Your task to perform on an android device: Open calendar and show me the third week of next month Image 0: 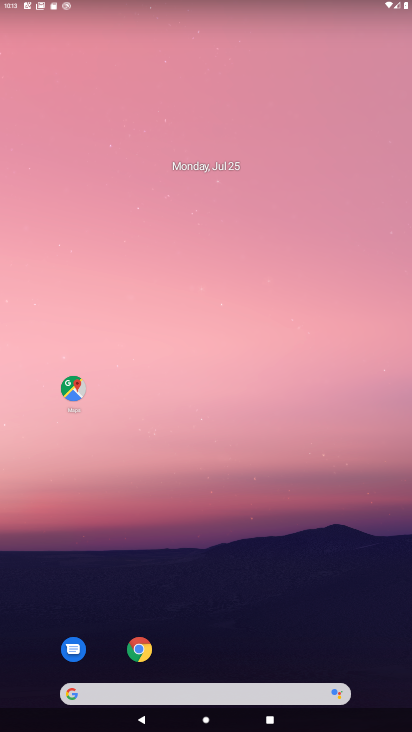
Step 0: drag from (384, 674) to (345, 85)
Your task to perform on an android device: Open calendar and show me the third week of next month Image 1: 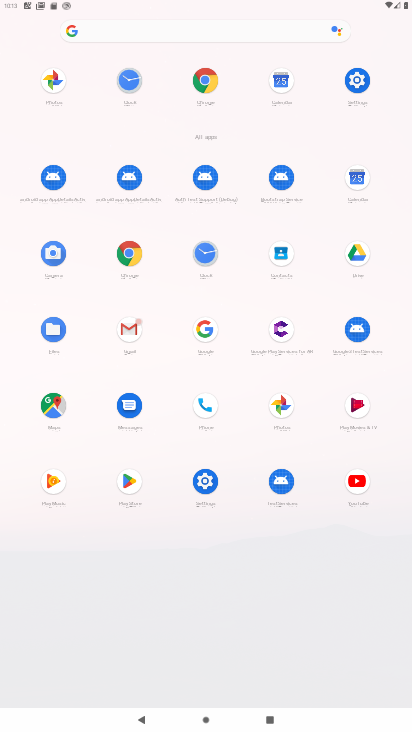
Step 1: click (357, 176)
Your task to perform on an android device: Open calendar and show me the third week of next month Image 2: 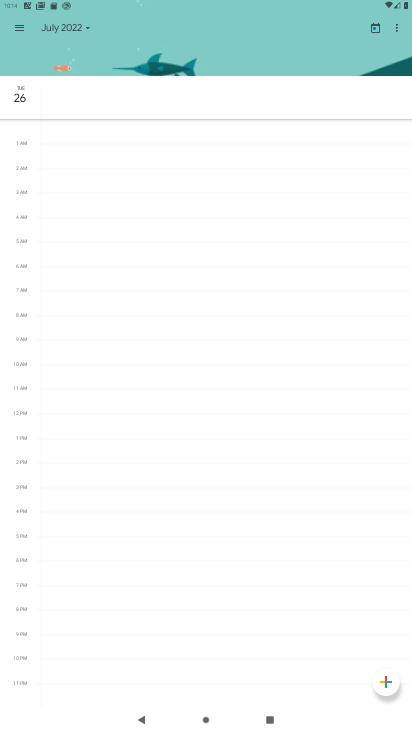
Step 2: click (19, 27)
Your task to perform on an android device: Open calendar and show me the third week of next month Image 3: 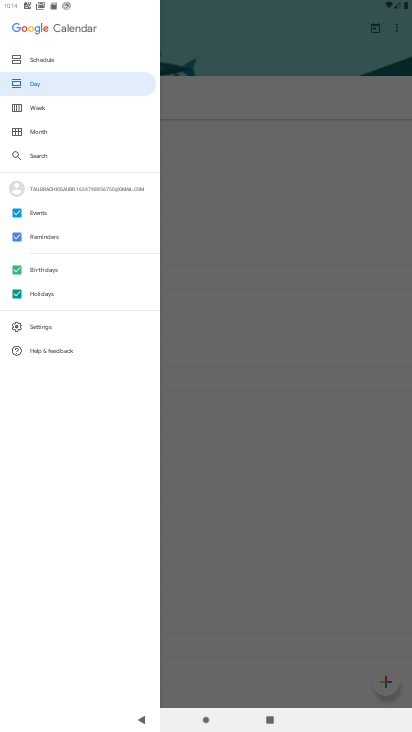
Step 3: click (39, 109)
Your task to perform on an android device: Open calendar and show me the third week of next month Image 4: 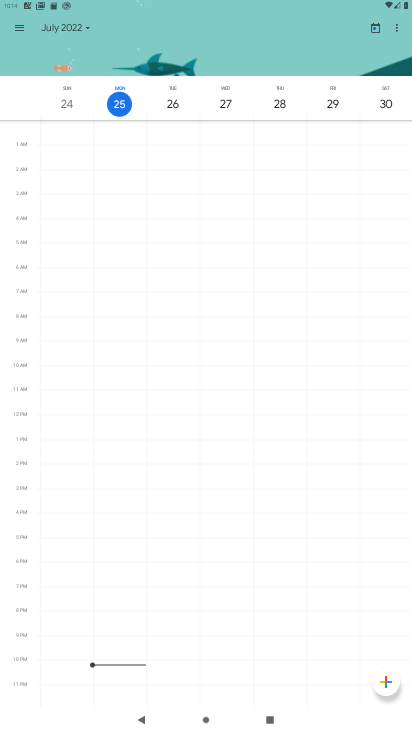
Step 4: click (90, 26)
Your task to perform on an android device: Open calendar and show me the third week of next month Image 5: 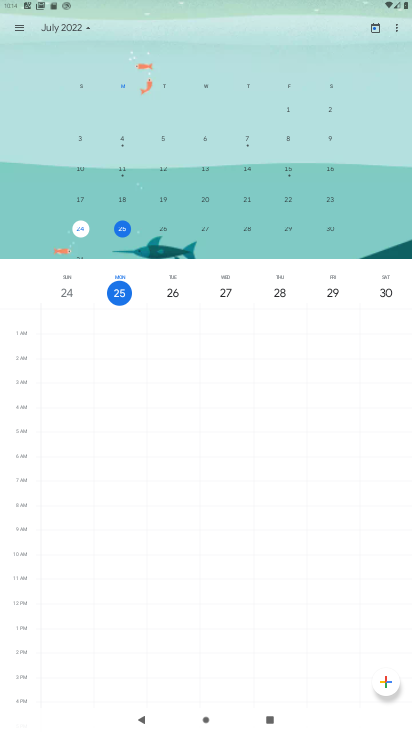
Step 5: drag from (340, 180) to (50, 181)
Your task to perform on an android device: Open calendar and show me the third week of next month Image 6: 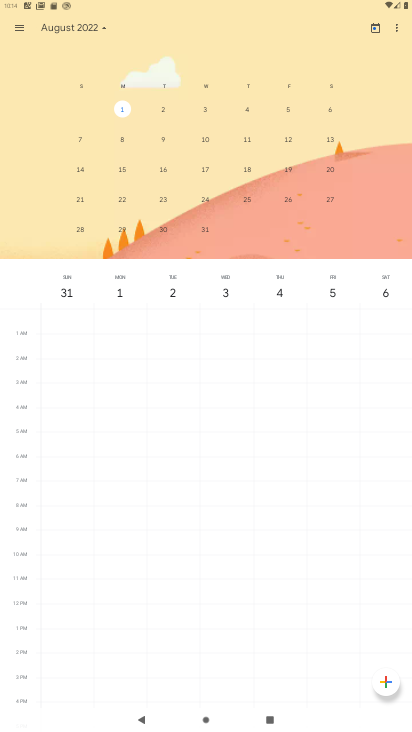
Step 6: click (80, 202)
Your task to perform on an android device: Open calendar and show me the third week of next month Image 7: 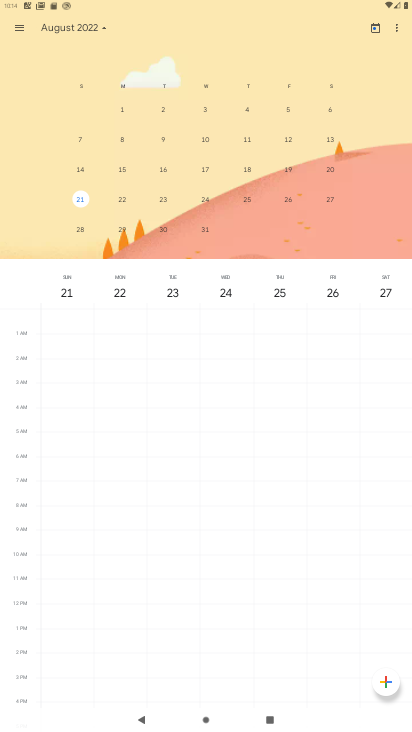
Step 7: task complete